Your task to perform on an android device: toggle notifications settings in the gmail app Image 0: 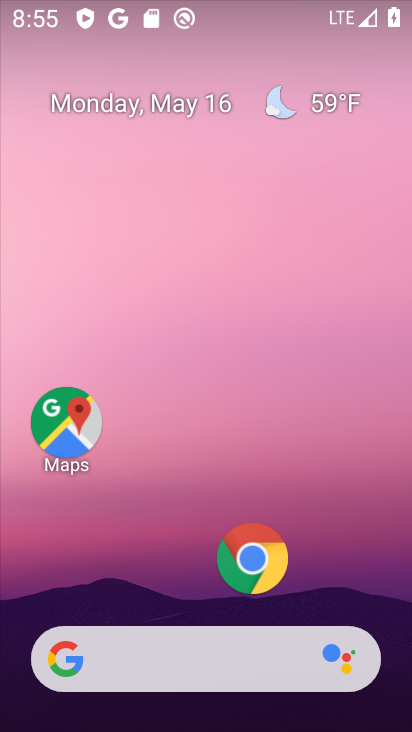
Step 0: drag from (169, 603) to (222, 78)
Your task to perform on an android device: toggle notifications settings in the gmail app Image 1: 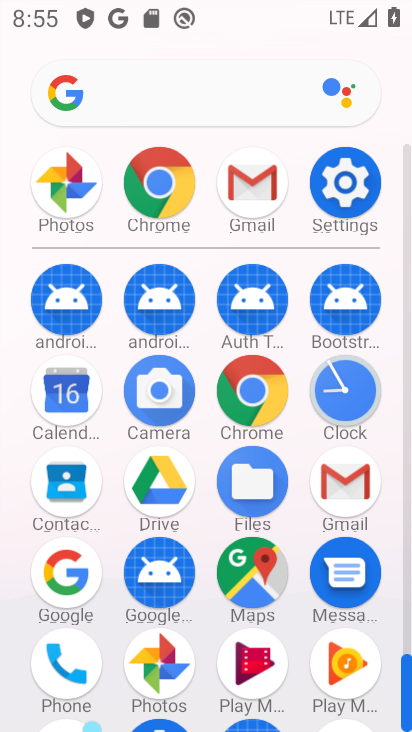
Step 1: click (238, 196)
Your task to perform on an android device: toggle notifications settings in the gmail app Image 2: 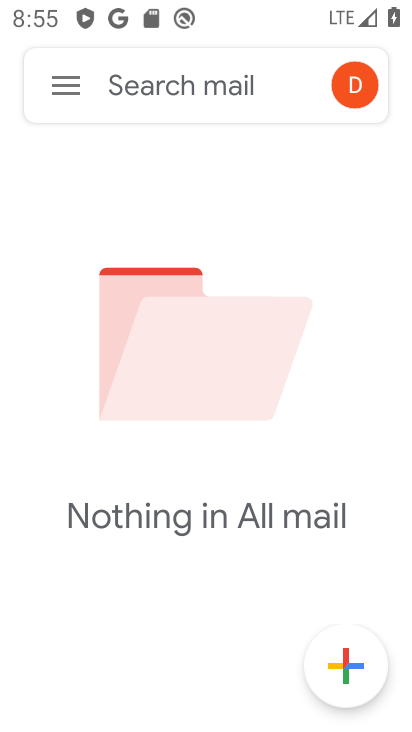
Step 2: click (58, 85)
Your task to perform on an android device: toggle notifications settings in the gmail app Image 3: 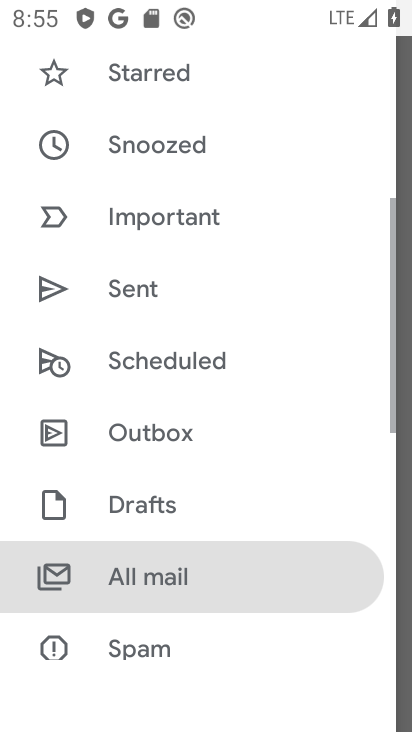
Step 3: drag from (216, 631) to (304, 23)
Your task to perform on an android device: toggle notifications settings in the gmail app Image 4: 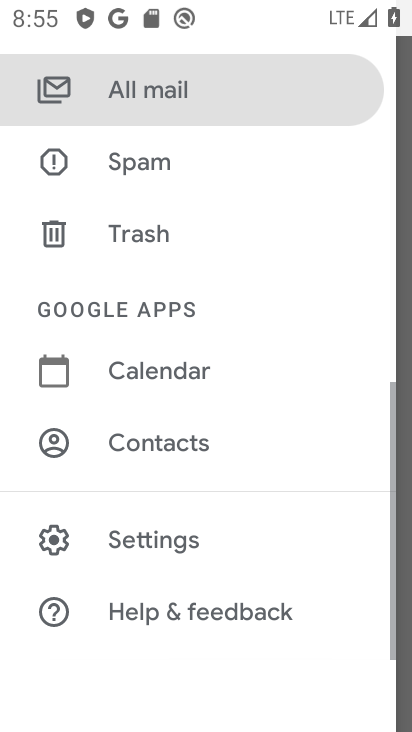
Step 4: click (157, 528)
Your task to perform on an android device: toggle notifications settings in the gmail app Image 5: 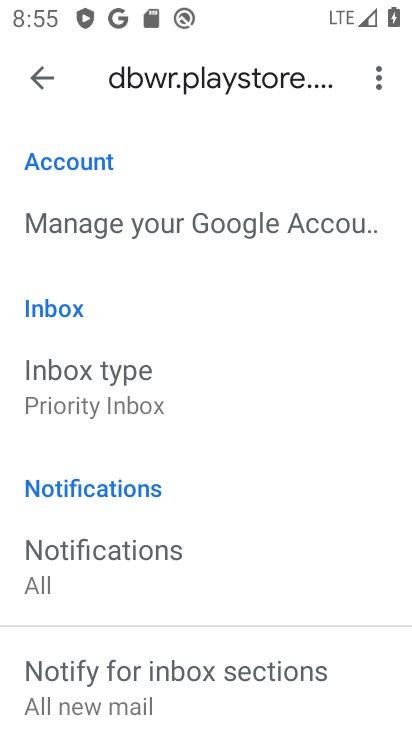
Step 5: drag from (123, 594) to (238, 85)
Your task to perform on an android device: toggle notifications settings in the gmail app Image 6: 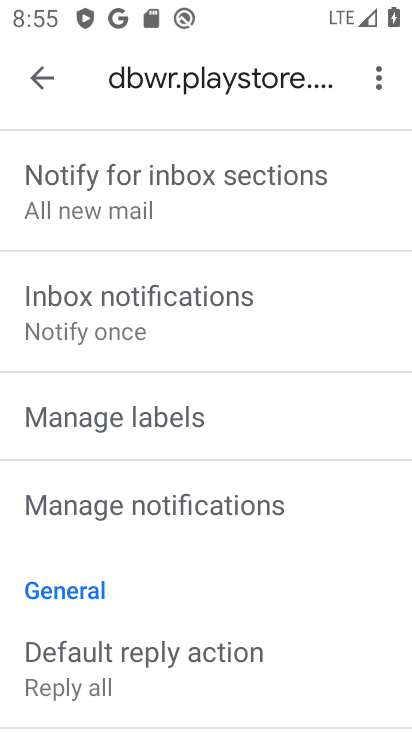
Step 6: click (105, 491)
Your task to perform on an android device: toggle notifications settings in the gmail app Image 7: 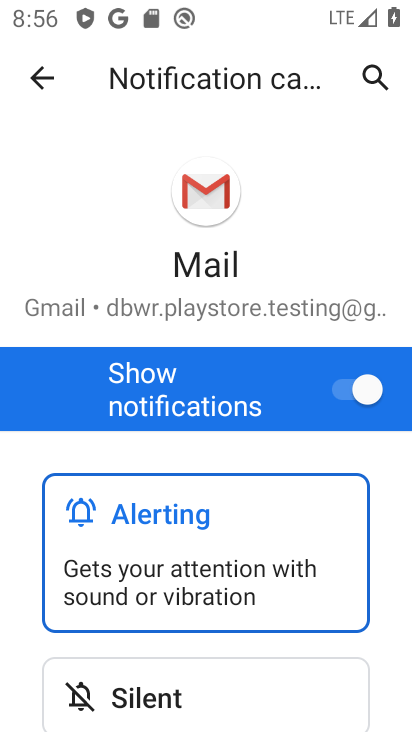
Step 7: drag from (239, 631) to (238, 315)
Your task to perform on an android device: toggle notifications settings in the gmail app Image 8: 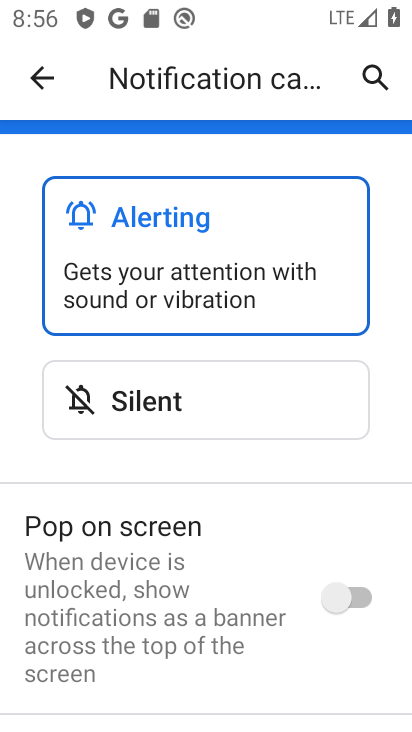
Step 8: drag from (260, 267) to (224, 728)
Your task to perform on an android device: toggle notifications settings in the gmail app Image 9: 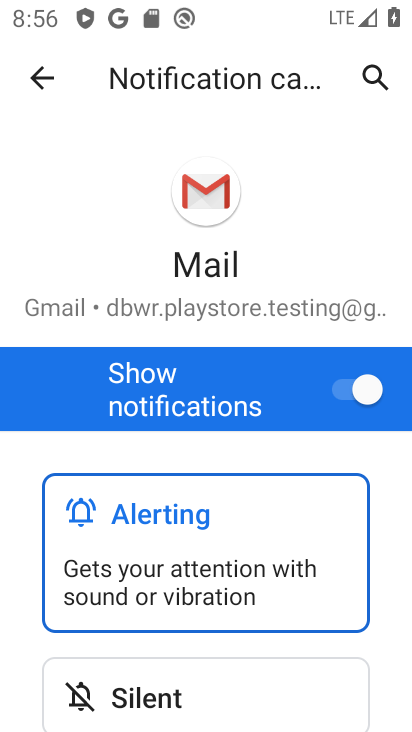
Step 9: click (366, 398)
Your task to perform on an android device: toggle notifications settings in the gmail app Image 10: 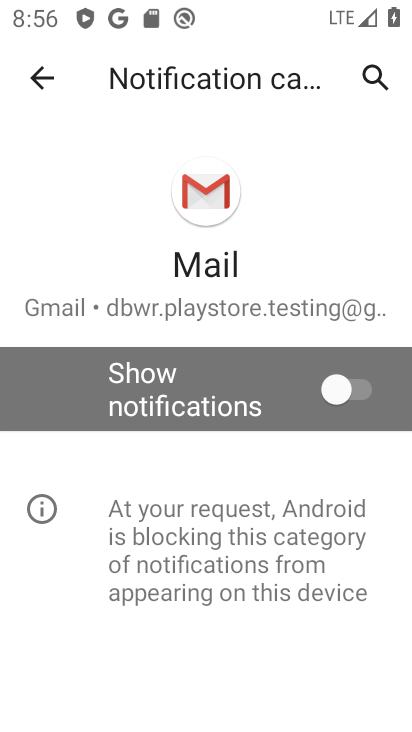
Step 10: task complete